Your task to perform on an android device: toggle data saver in the chrome app Image 0: 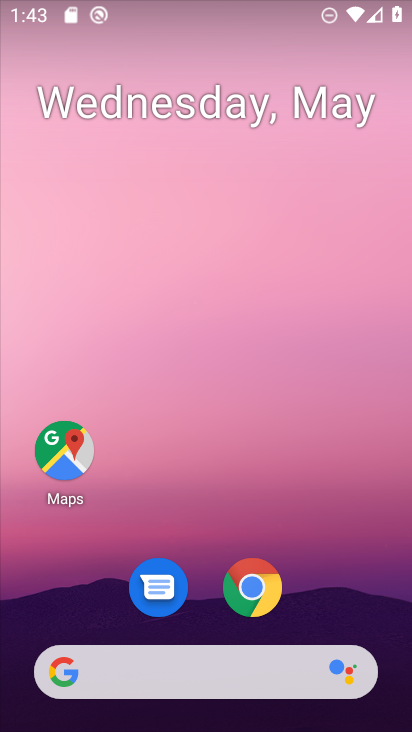
Step 0: click (266, 607)
Your task to perform on an android device: toggle data saver in the chrome app Image 1: 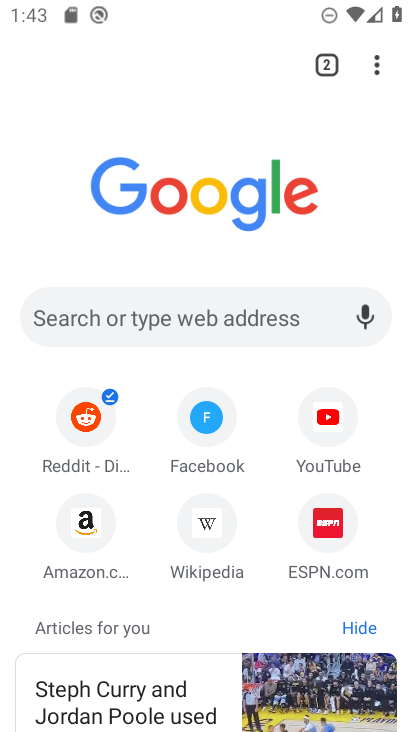
Step 1: click (376, 55)
Your task to perform on an android device: toggle data saver in the chrome app Image 2: 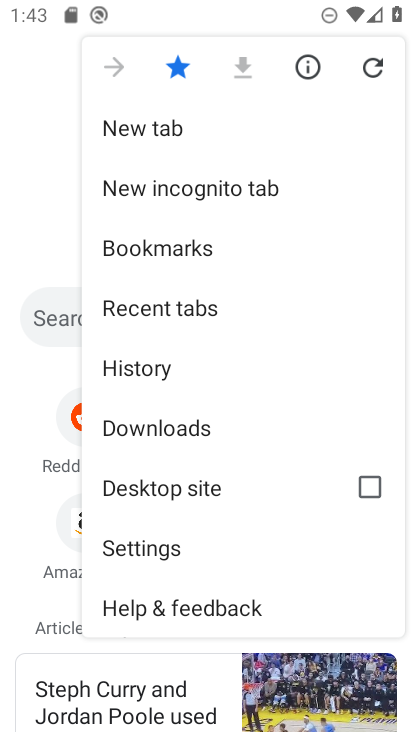
Step 2: click (145, 563)
Your task to perform on an android device: toggle data saver in the chrome app Image 3: 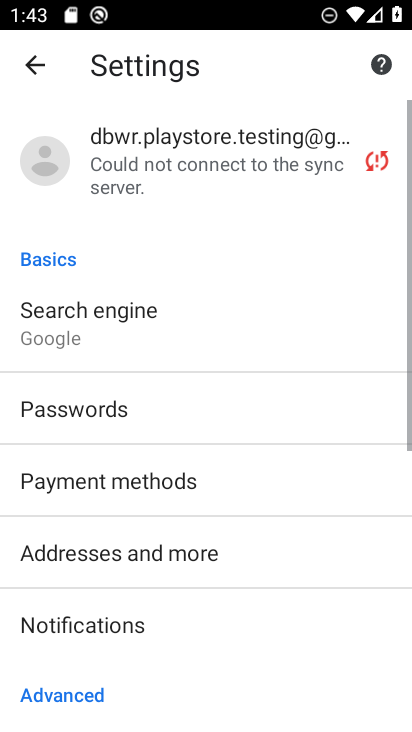
Step 3: drag from (196, 609) to (193, 182)
Your task to perform on an android device: toggle data saver in the chrome app Image 4: 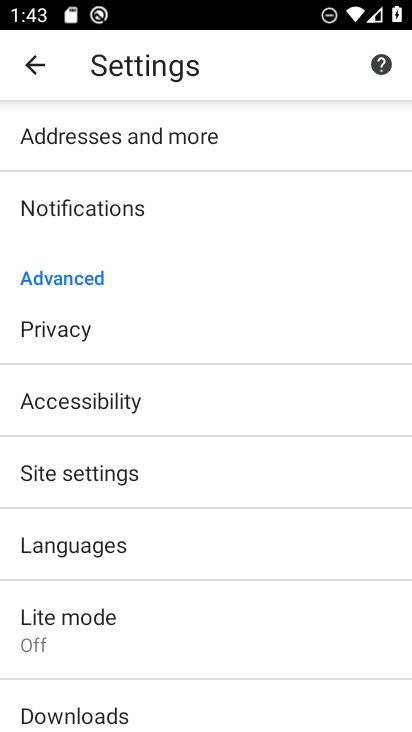
Step 4: click (92, 638)
Your task to perform on an android device: toggle data saver in the chrome app Image 5: 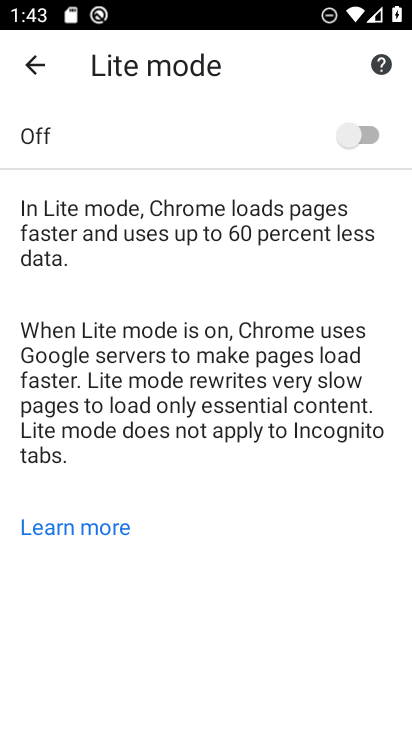
Step 5: click (380, 132)
Your task to perform on an android device: toggle data saver in the chrome app Image 6: 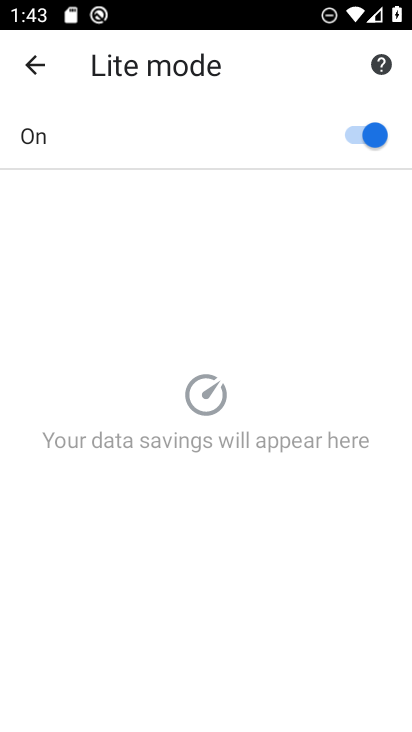
Step 6: task complete